Your task to perform on an android device: turn on sleep mode Image 0: 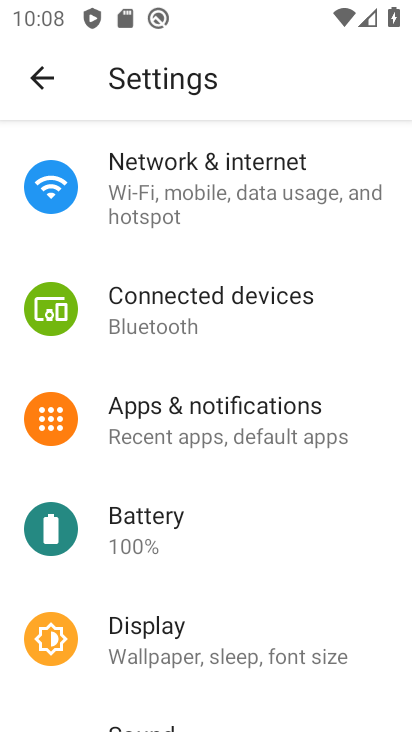
Step 0: drag from (278, 589) to (291, 283)
Your task to perform on an android device: turn on sleep mode Image 1: 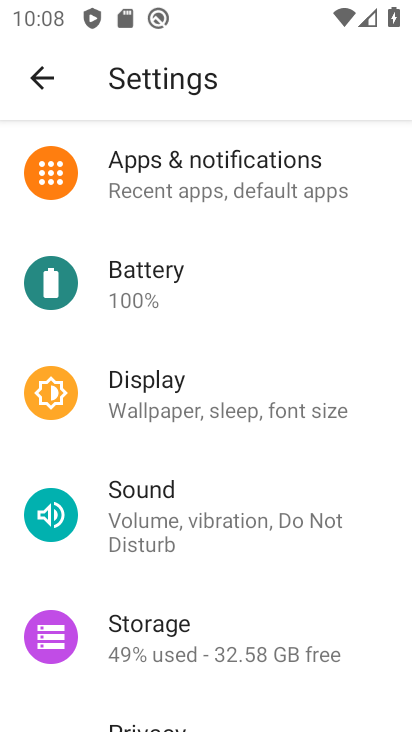
Step 1: click (186, 412)
Your task to perform on an android device: turn on sleep mode Image 2: 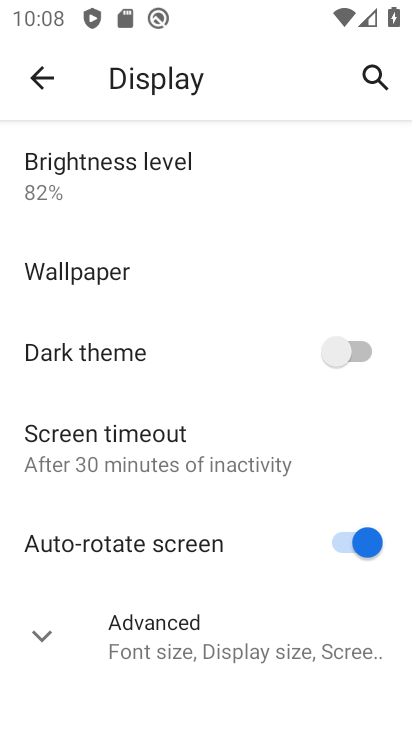
Step 2: task complete